Your task to perform on an android device: allow notifications from all sites in the chrome app Image 0: 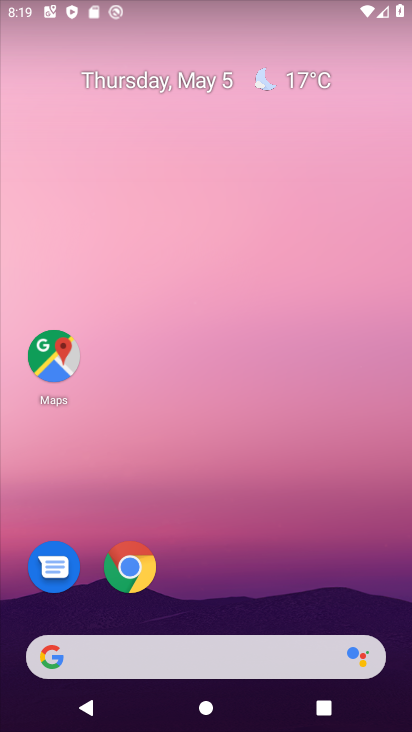
Step 0: drag from (278, 578) to (265, 46)
Your task to perform on an android device: allow notifications from all sites in the chrome app Image 1: 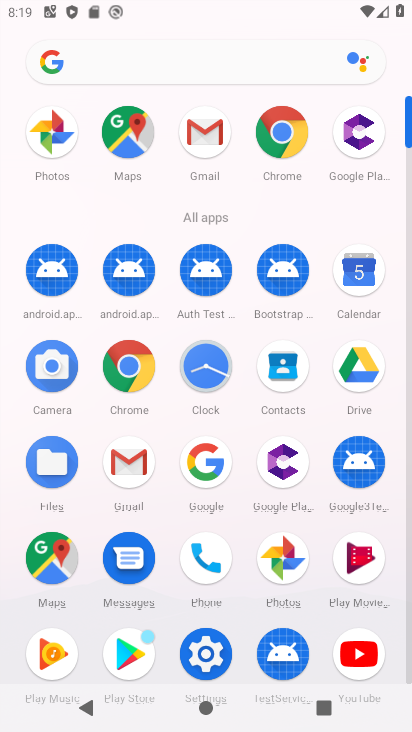
Step 1: click (276, 130)
Your task to perform on an android device: allow notifications from all sites in the chrome app Image 2: 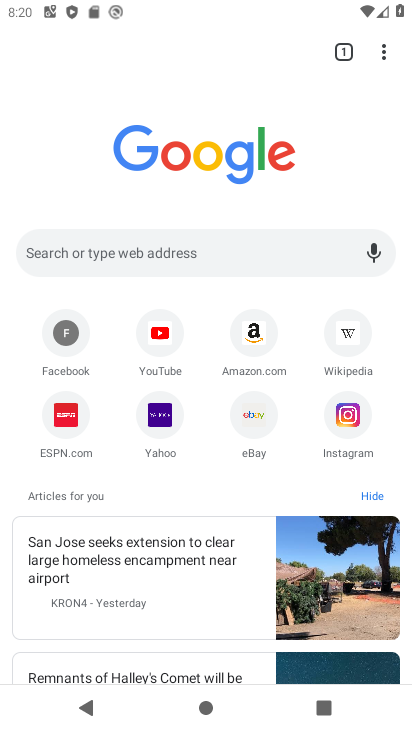
Step 2: drag from (381, 57) to (231, 423)
Your task to perform on an android device: allow notifications from all sites in the chrome app Image 3: 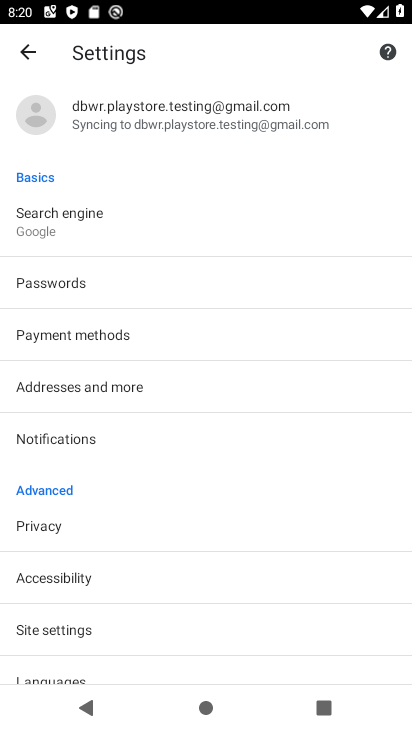
Step 3: click (138, 437)
Your task to perform on an android device: allow notifications from all sites in the chrome app Image 4: 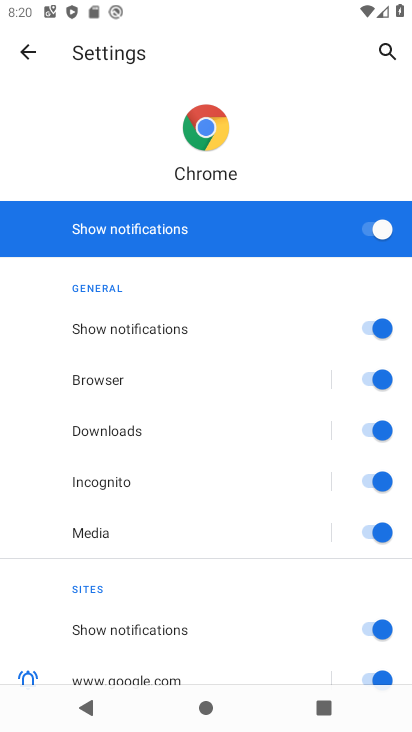
Step 4: task complete